Your task to perform on an android device: turn on sleep mode Image 0: 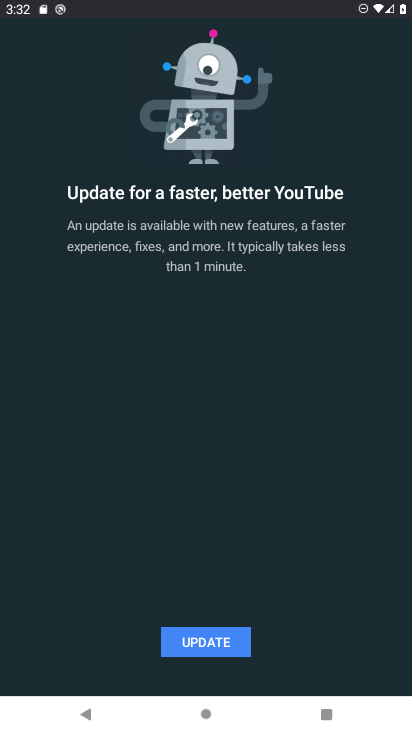
Step 0: press home button
Your task to perform on an android device: turn on sleep mode Image 1: 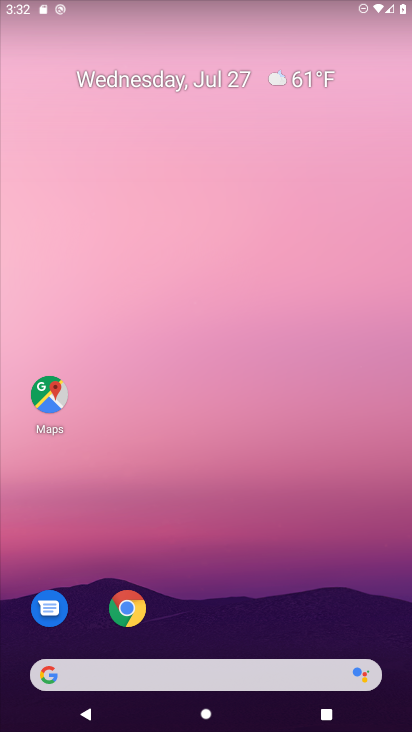
Step 1: drag from (226, 730) to (251, 64)
Your task to perform on an android device: turn on sleep mode Image 2: 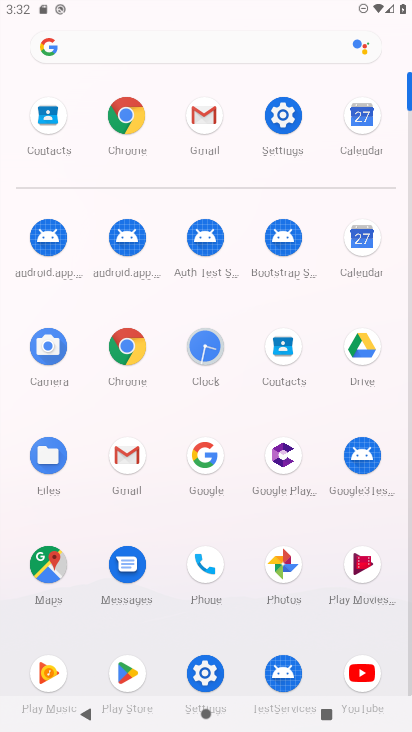
Step 2: click (282, 114)
Your task to perform on an android device: turn on sleep mode Image 3: 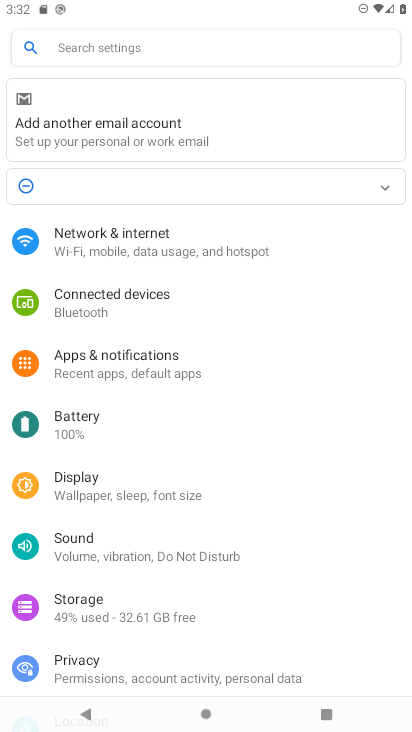
Step 3: click (90, 484)
Your task to perform on an android device: turn on sleep mode Image 4: 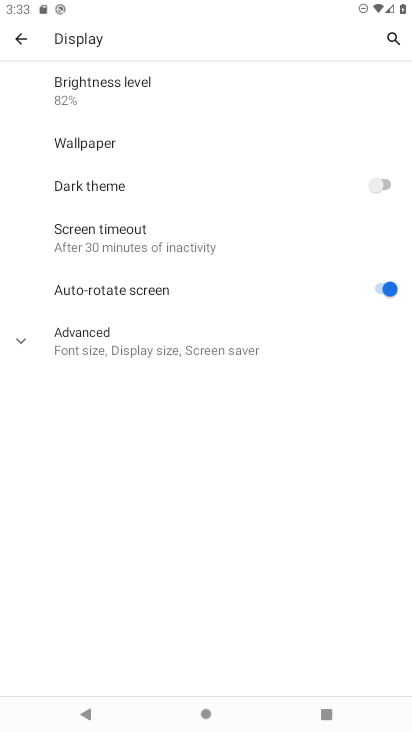
Step 4: task complete